Your task to perform on an android device: Go to battery settings Image 0: 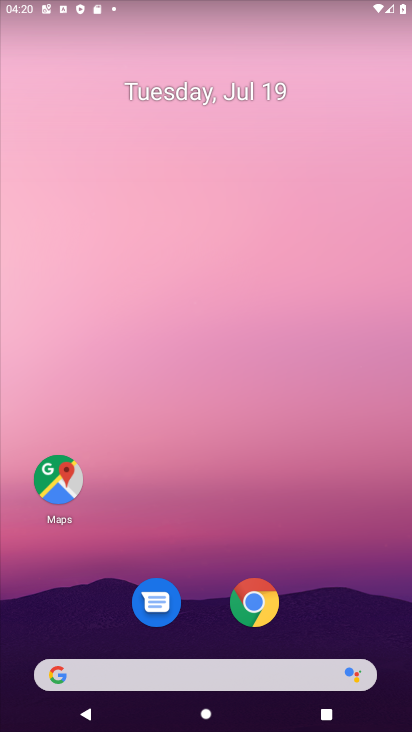
Step 0: drag from (294, 7) to (318, 481)
Your task to perform on an android device: Go to battery settings Image 1: 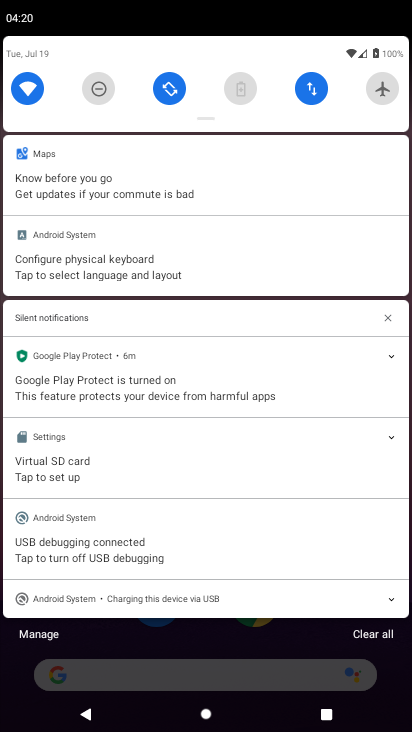
Step 1: click (234, 95)
Your task to perform on an android device: Go to battery settings Image 2: 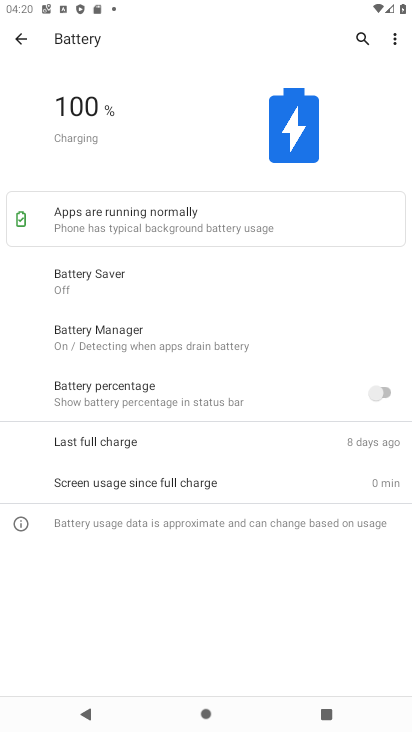
Step 2: task complete